Your task to perform on an android device: open the mobile data screen to see how much data has been used Image 0: 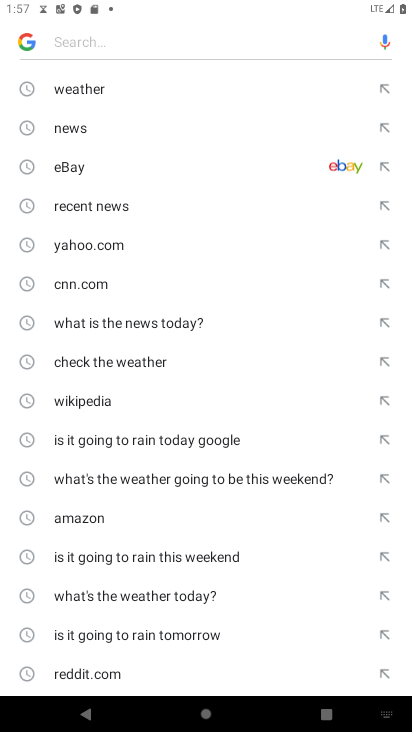
Step 0: press home button
Your task to perform on an android device: open the mobile data screen to see how much data has been used Image 1: 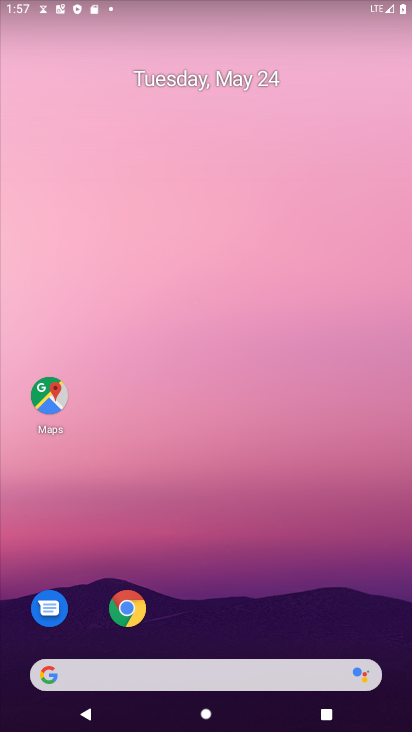
Step 1: drag from (263, 635) to (224, 185)
Your task to perform on an android device: open the mobile data screen to see how much data has been used Image 2: 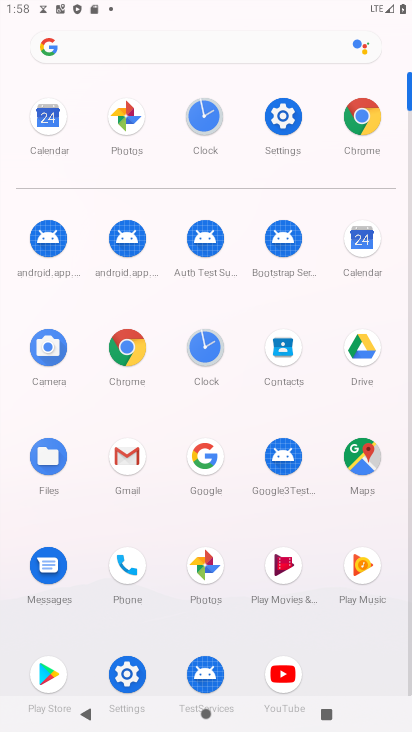
Step 2: click (291, 114)
Your task to perform on an android device: open the mobile data screen to see how much data has been used Image 3: 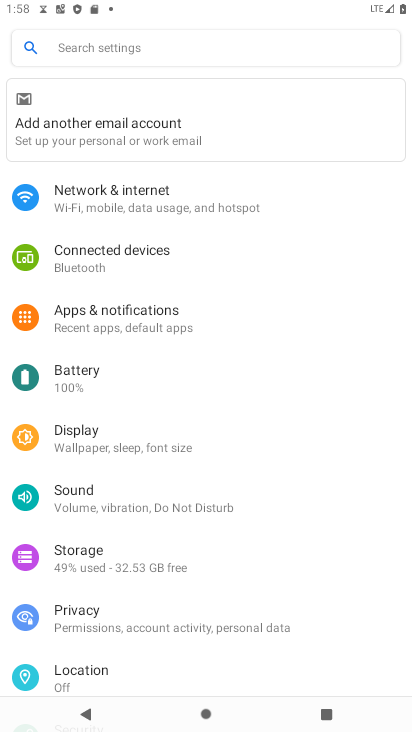
Step 3: click (176, 213)
Your task to perform on an android device: open the mobile data screen to see how much data has been used Image 4: 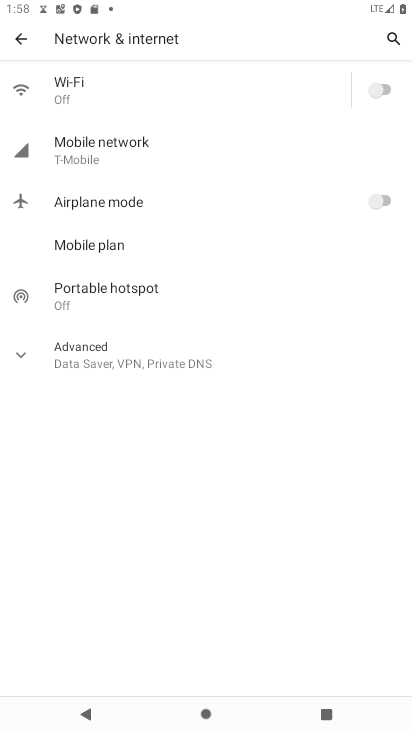
Step 4: click (158, 151)
Your task to perform on an android device: open the mobile data screen to see how much data has been used Image 5: 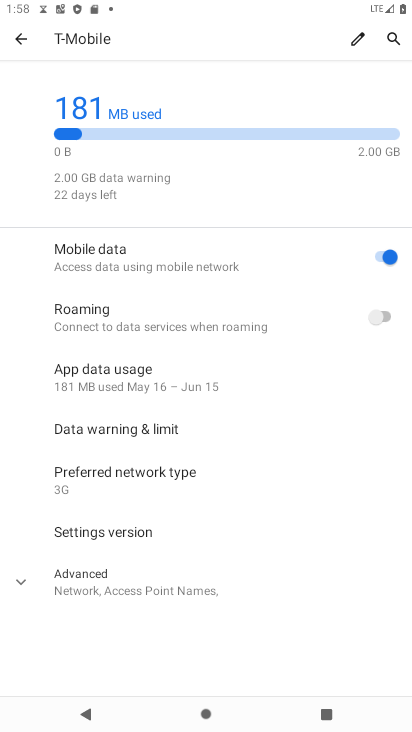
Step 5: task complete